Your task to perform on an android device: change the clock style Image 0: 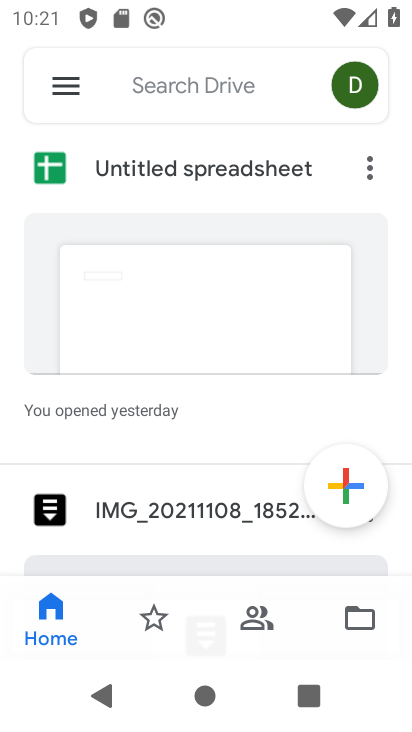
Step 0: press home button
Your task to perform on an android device: change the clock style Image 1: 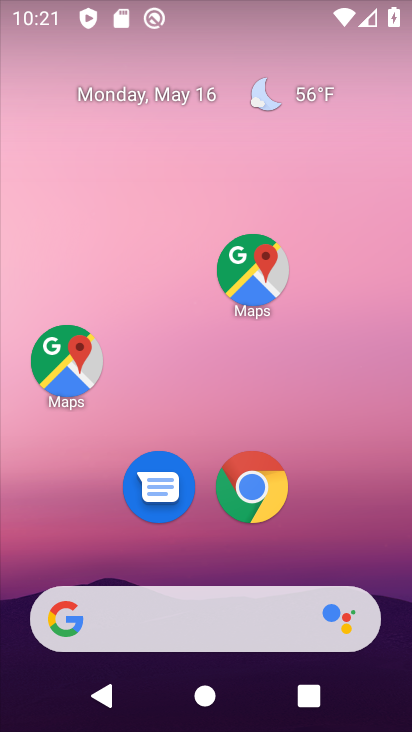
Step 1: drag from (310, 539) to (269, 67)
Your task to perform on an android device: change the clock style Image 2: 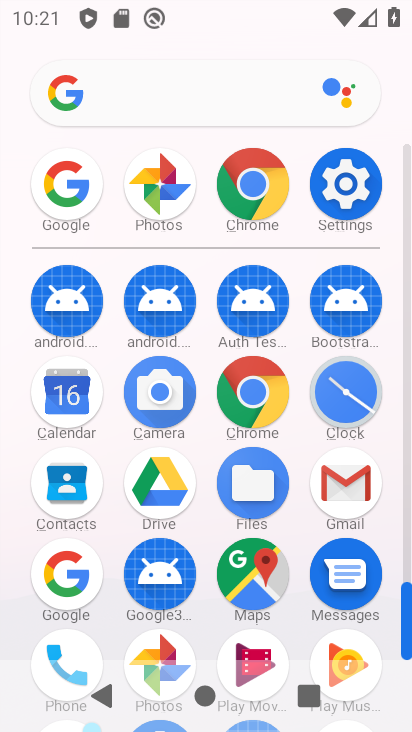
Step 2: click (357, 423)
Your task to perform on an android device: change the clock style Image 3: 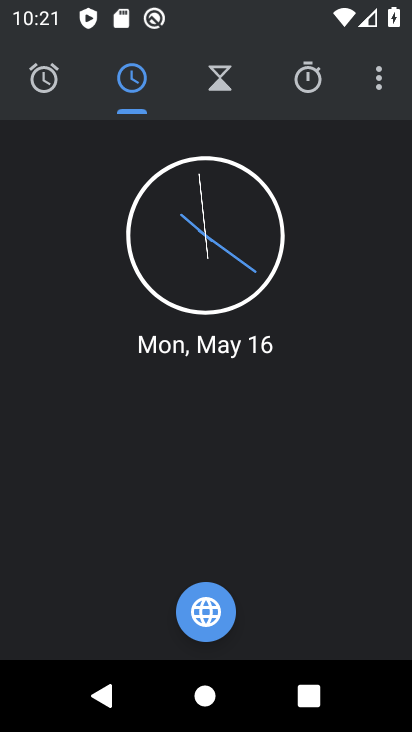
Step 3: click (379, 88)
Your task to perform on an android device: change the clock style Image 4: 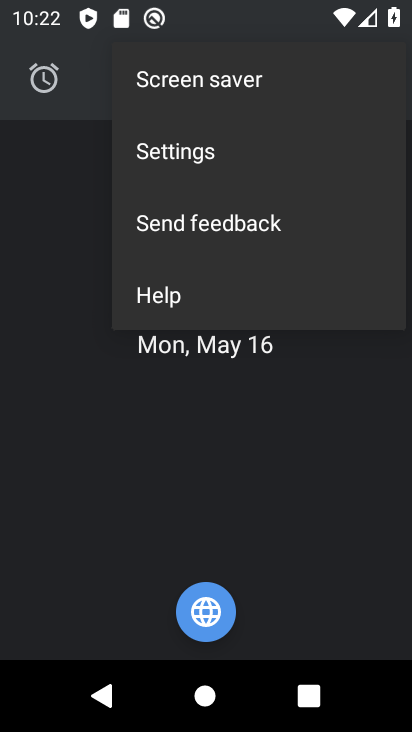
Step 4: click (220, 169)
Your task to perform on an android device: change the clock style Image 5: 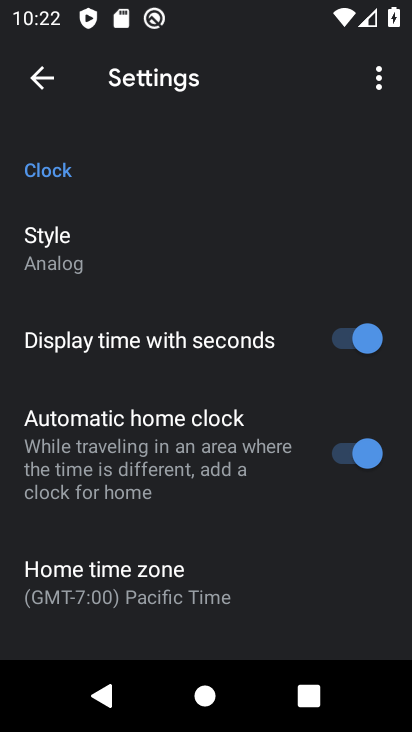
Step 5: click (82, 265)
Your task to perform on an android device: change the clock style Image 6: 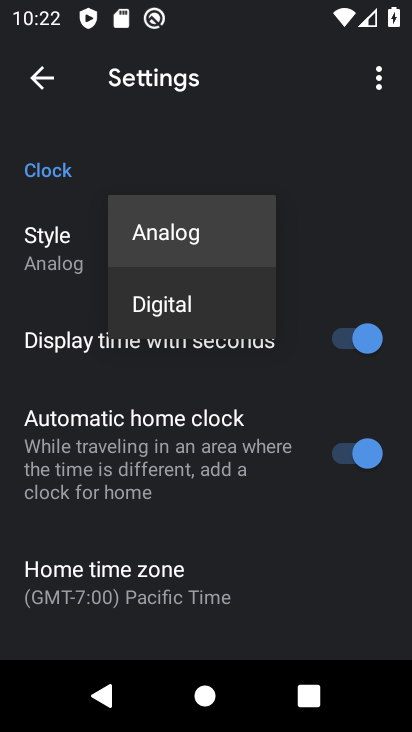
Step 6: click (138, 243)
Your task to perform on an android device: change the clock style Image 7: 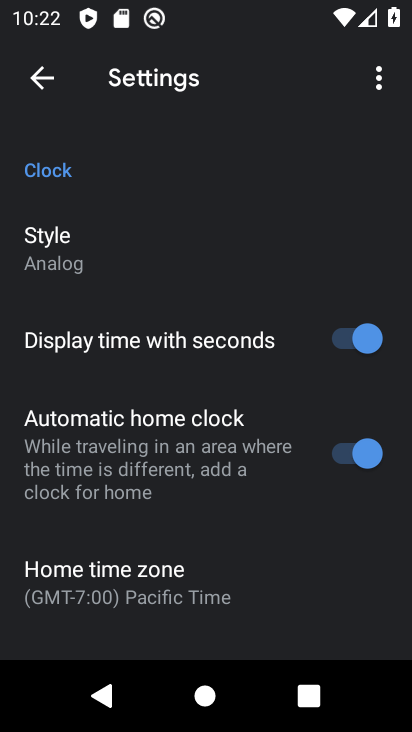
Step 7: task complete